Your task to perform on an android device: Open Wikipedia Image 0: 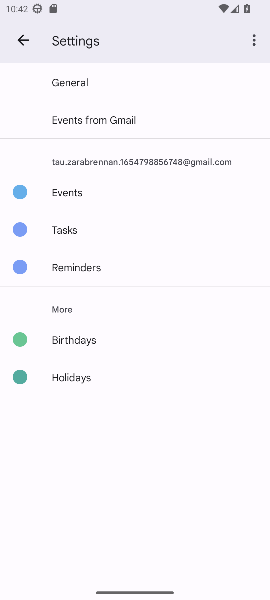
Step 0: press home button
Your task to perform on an android device: Open Wikipedia Image 1: 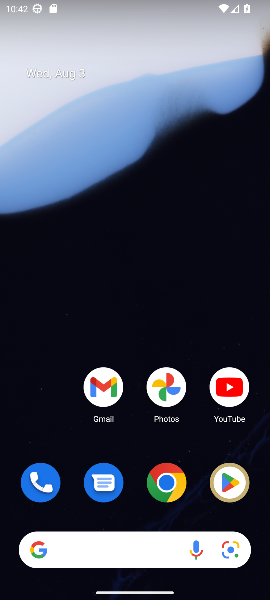
Step 1: task complete